Your task to perform on an android device: check storage Image 0: 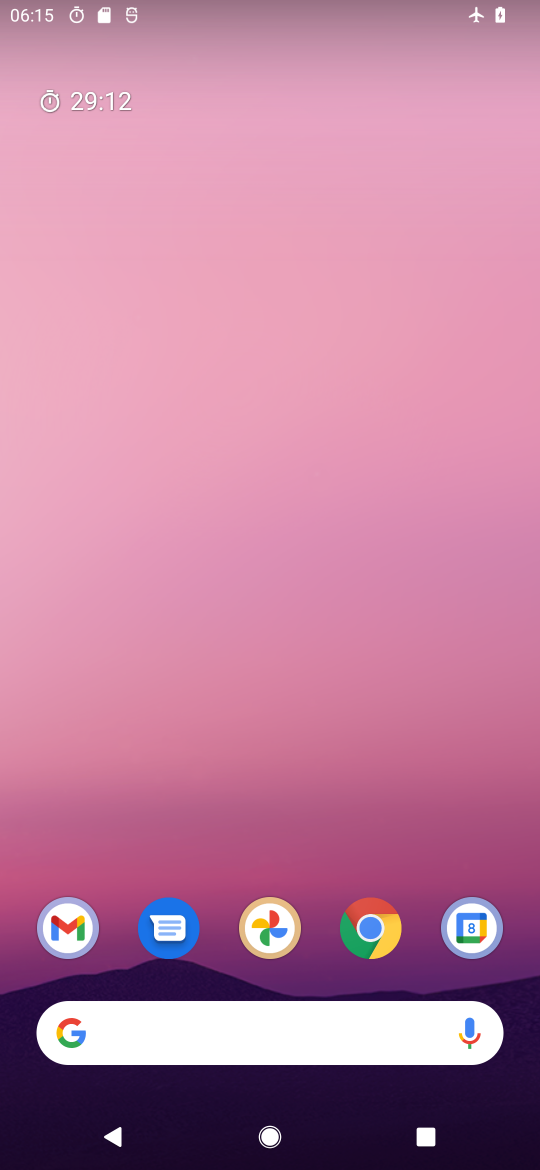
Step 0: drag from (216, 945) to (197, 15)
Your task to perform on an android device: check storage Image 1: 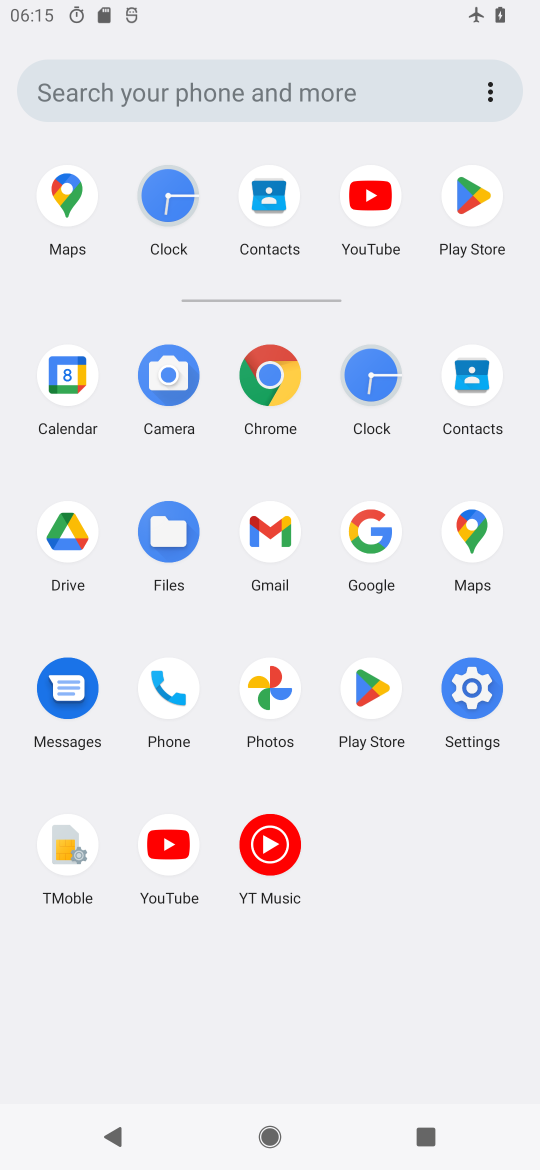
Step 1: click (489, 698)
Your task to perform on an android device: check storage Image 2: 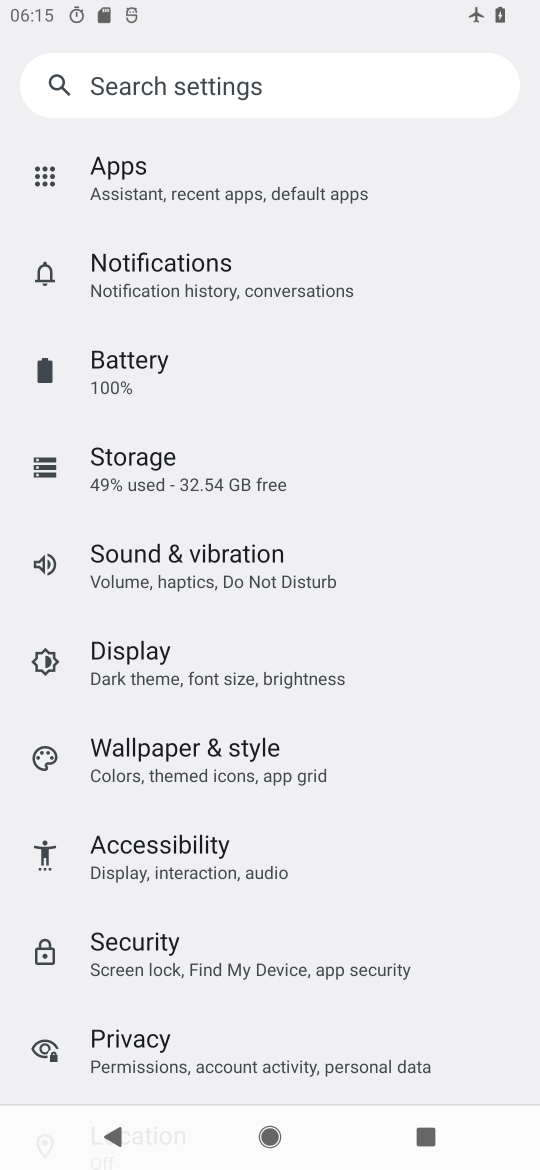
Step 2: drag from (191, 944) to (241, 535)
Your task to perform on an android device: check storage Image 3: 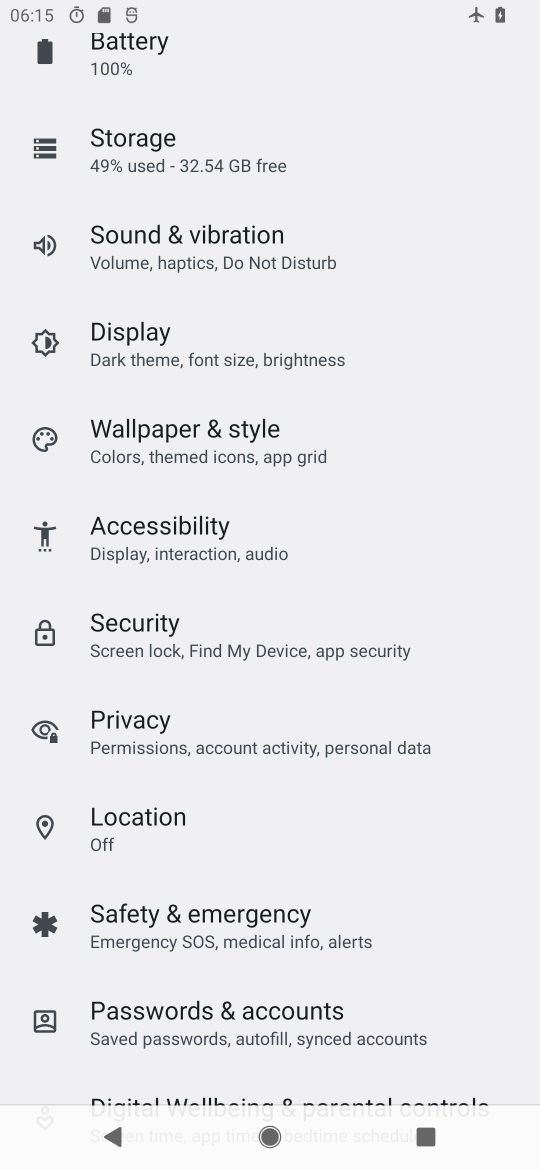
Step 3: drag from (285, 425) to (303, 1120)
Your task to perform on an android device: check storage Image 4: 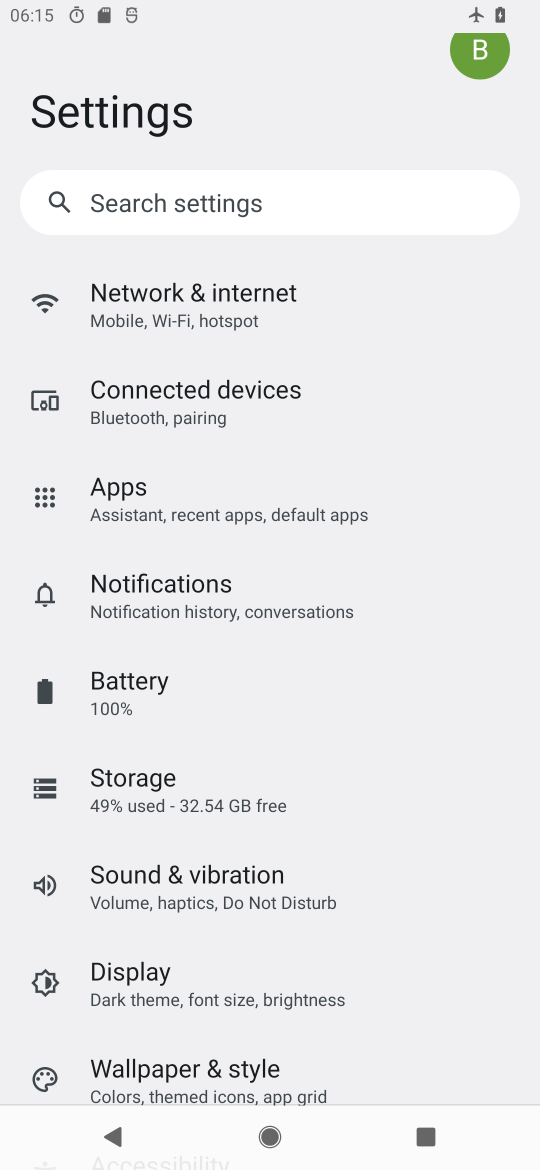
Step 4: click (201, 802)
Your task to perform on an android device: check storage Image 5: 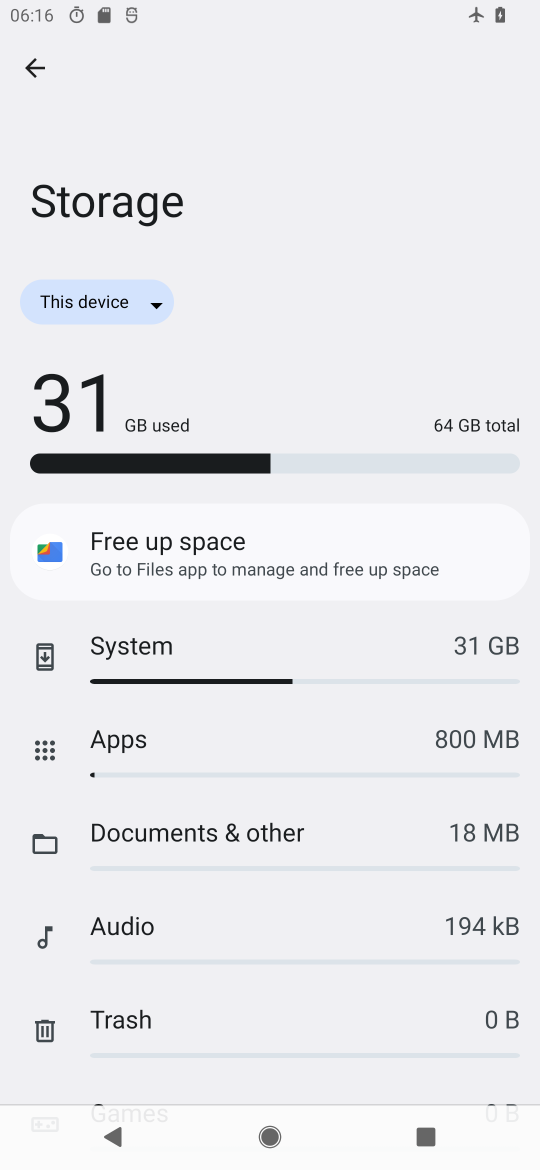
Step 5: task complete